Your task to perform on an android device: find which apps use the phone's location Image 0: 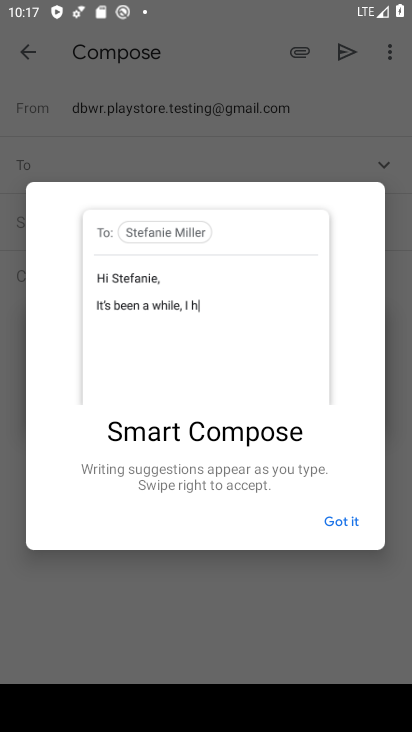
Step 0: press home button
Your task to perform on an android device: find which apps use the phone's location Image 1: 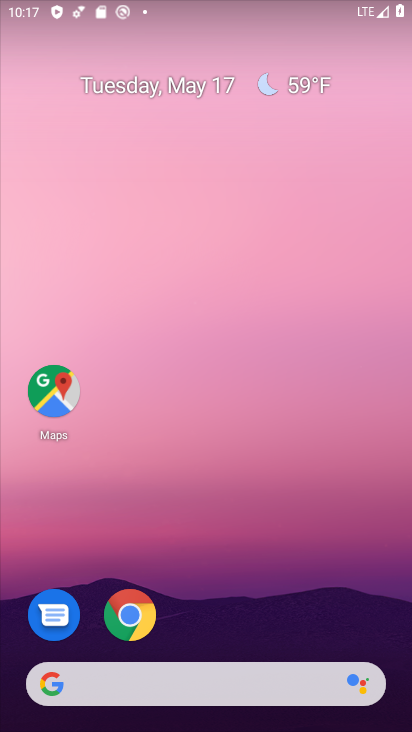
Step 1: drag from (221, 685) to (349, 49)
Your task to perform on an android device: find which apps use the phone's location Image 2: 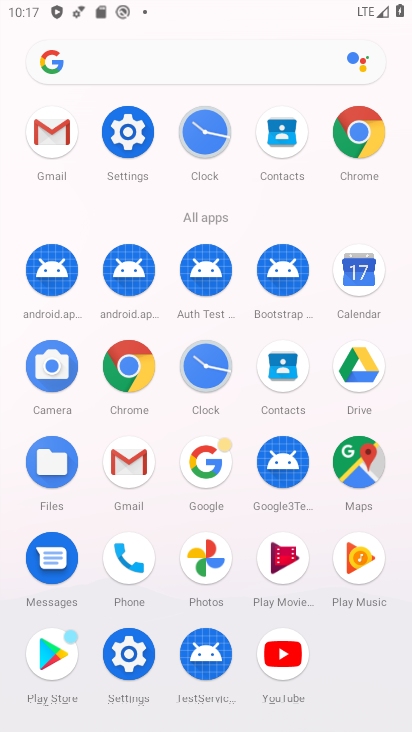
Step 2: click (125, 136)
Your task to perform on an android device: find which apps use the phone's location Image 3: 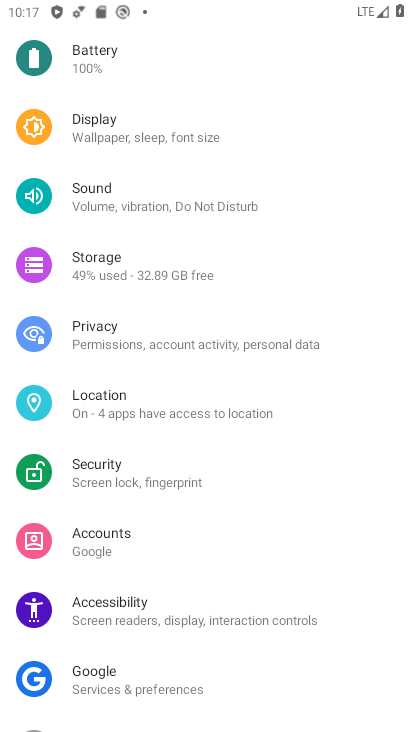
Step 3: click (158, 408)
Your task to perform on an android device: find which apps use the phone's location Image 4: 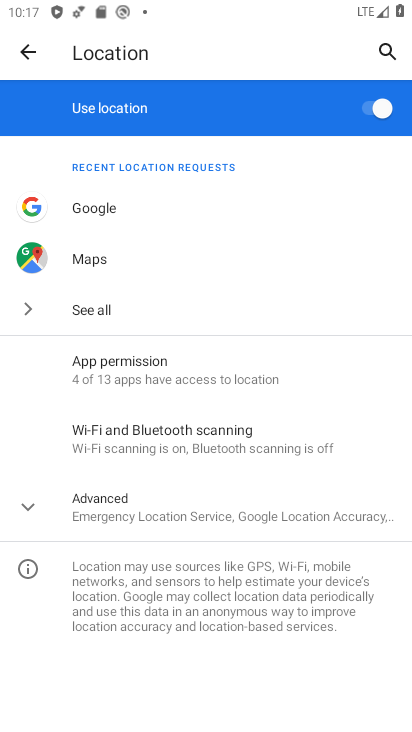
Step 4: click (127, 375)
Your task to perform on an android device: find which apps use the phone's location Image 5: 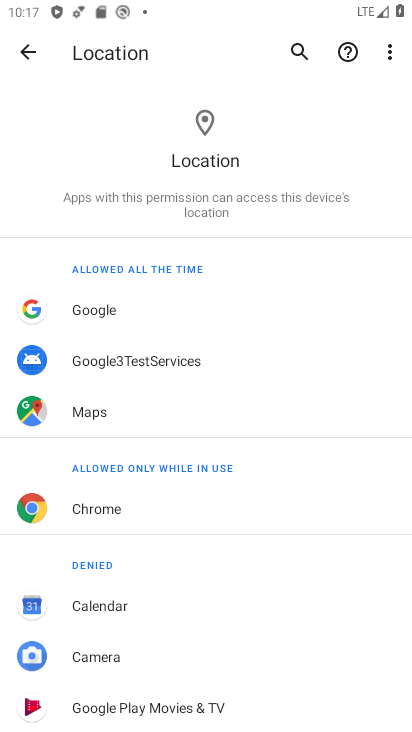
Step 5: drag from (200, 624) to (332, 89)
Your task to perform on an android device: find which apps use the phone's location Image 6: 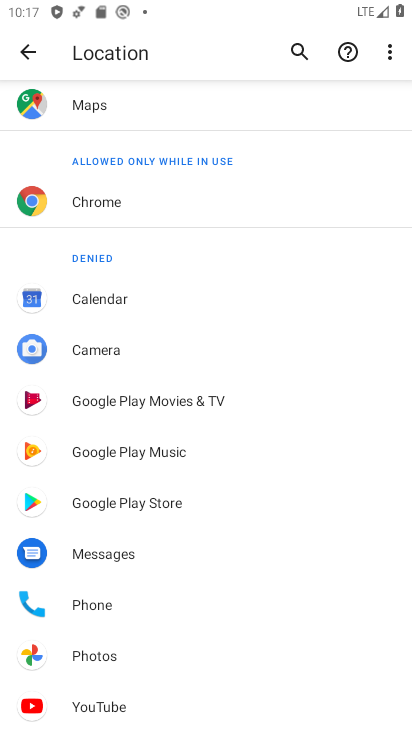
Step 6: click (104, 606)
Your task to perform on an android device: find which apps use the phone's location Image 7: 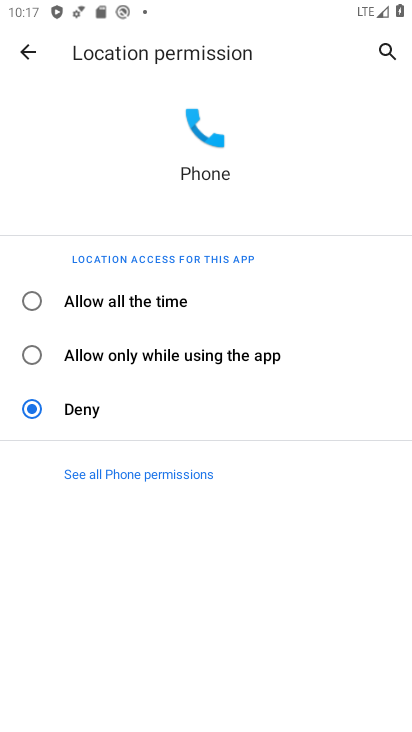
Step 7: task complete